Your task to perform on an android device: open app "Google Play services" Image 0: 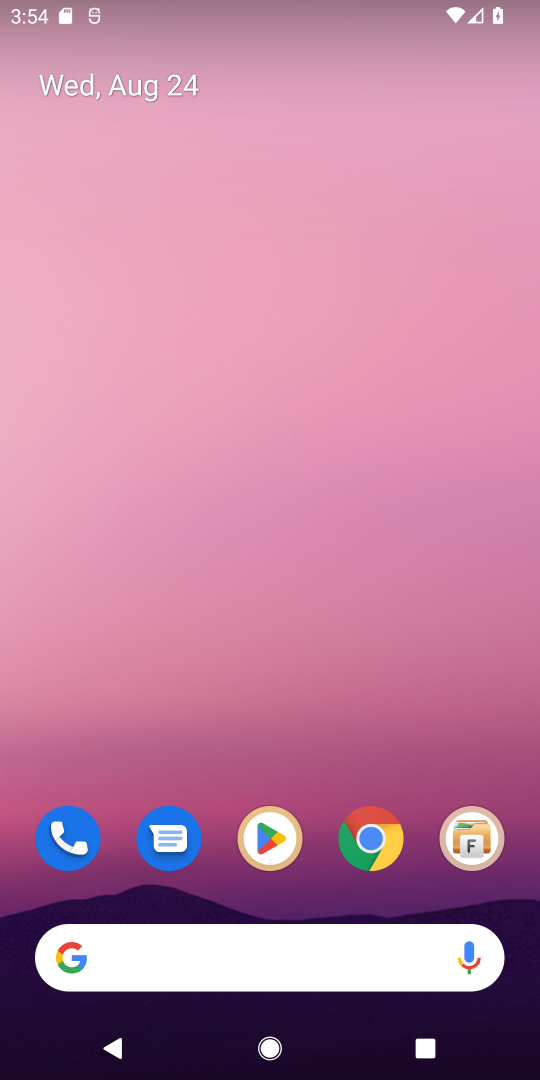
Step 0: click (267, 832)
Your task to perform on an android device: open app "Google Play services" Image 1: 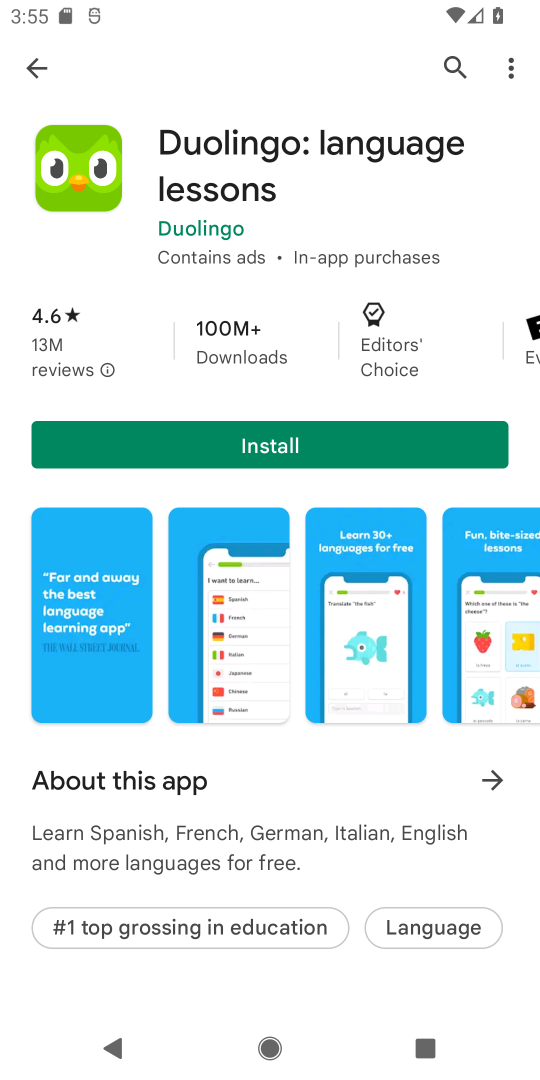
Step 1: click (445, 67)
Your task to perform on an android device: open app "Google Play services" Image 2: 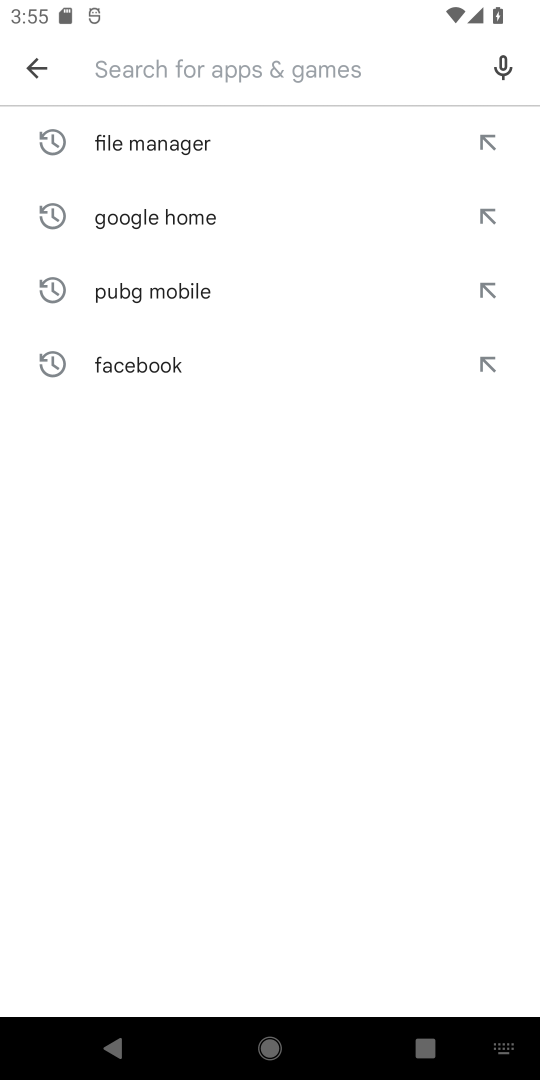
Step 2: type "Google Play services"
Your task to perform on an android device: open app "Google Play services" Image 3: 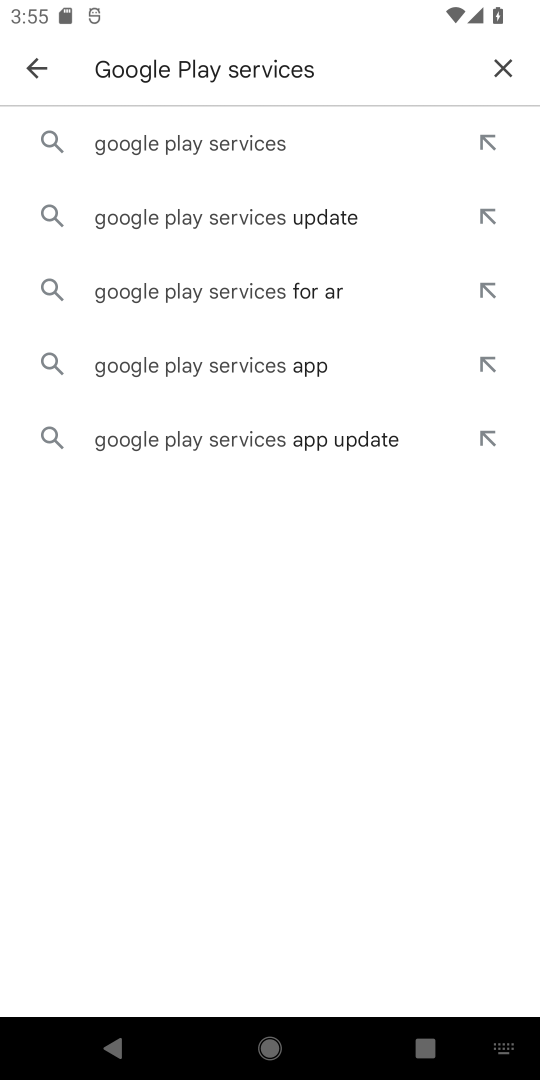
Step 3: click (301, 140)
Your task to perform on an android device: open app "Google Play services" Image 4: 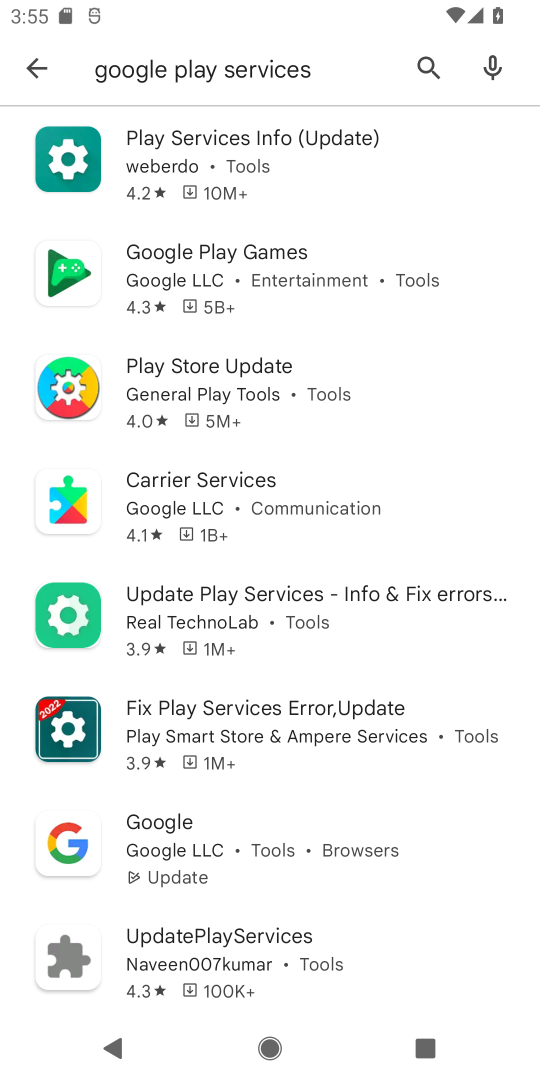
Step 4: task complete